Your task to perform on an android device: Go to calendar. Show me events next week Image 0: 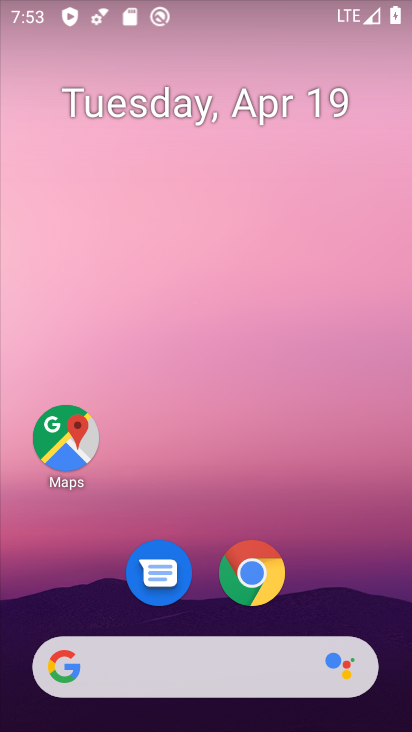
Step 0: drag from (334, 562) to (395, 130)
Your task to perform on an android device: Go to calendar. Show me events next week Image 1: 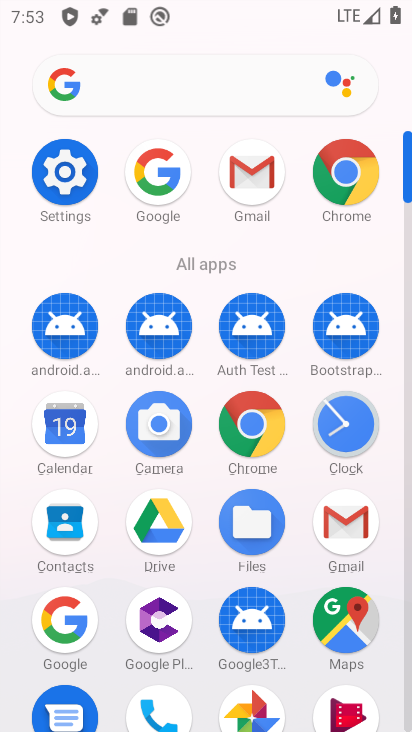
Step 1: click (77, 422)
Your task to perform on an android device: Go to calendar. Show me events next week Image 2: 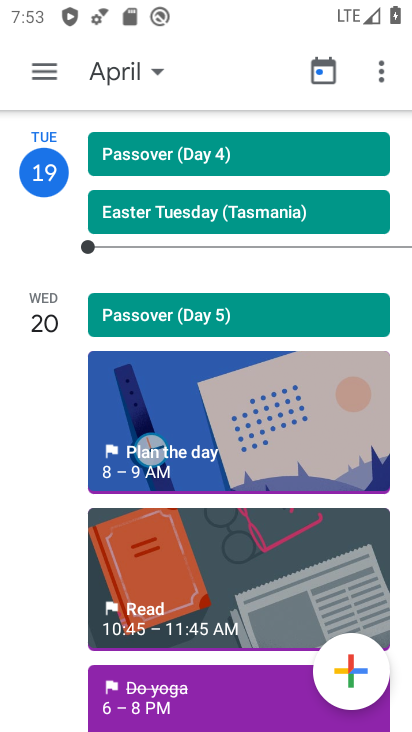
Step 2: click (136, 76)
Your task to perform on an android device: Go to calendar. Show me events next week Image 3: 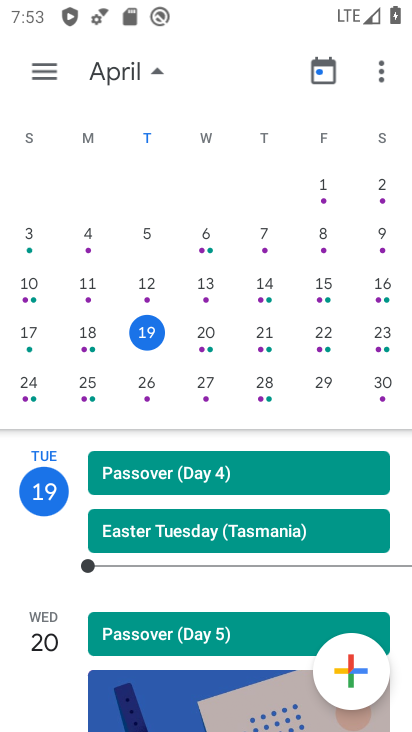
Step 3: click (146, 393)
Your task to perform on an android device: Go to calendar. Show me events next week Image 4: 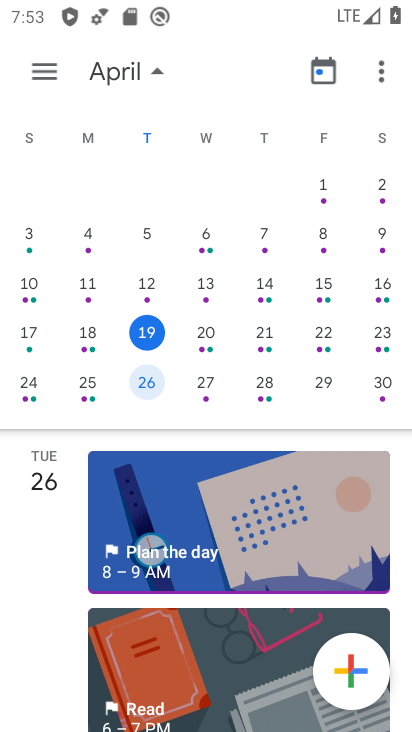
Step 4: task complete